Your task to perform on an android device: check storage Image 0: 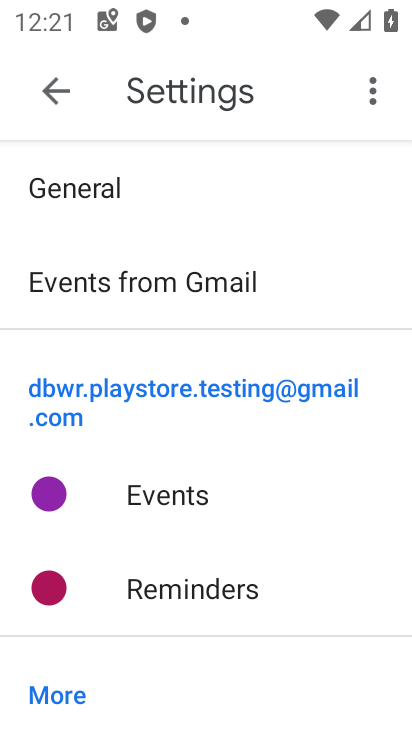
Step 0: press home button
Your task to perform on an android device: check storage Image 1: 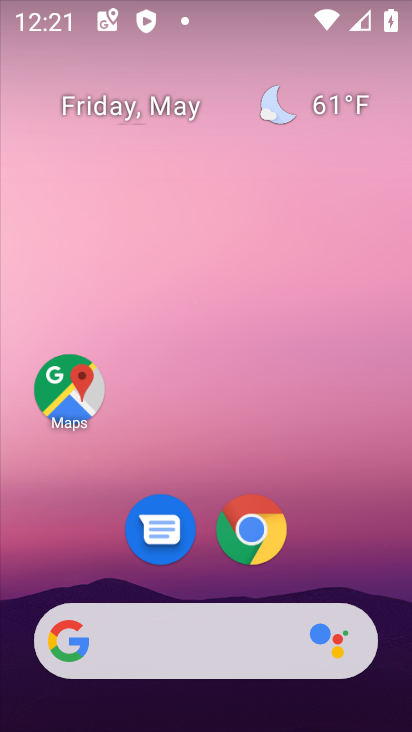
Step 1: drag from (362, 553) to (305, 90)
Your task to perform on an android device: check storage Image 2: 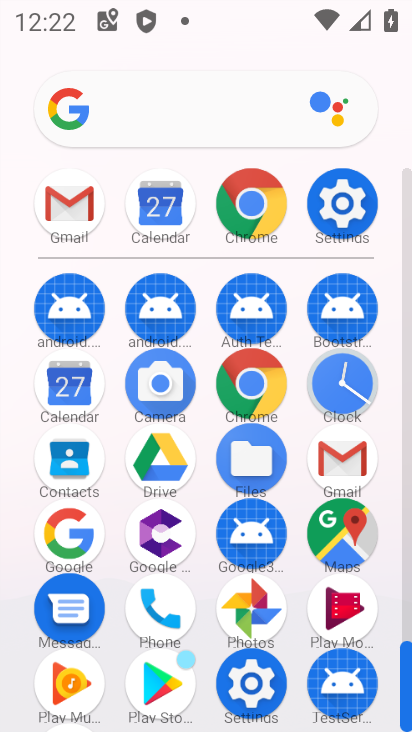
Step 2: click (335, 214)
Your task to perform on an android device: check storage Image 3: 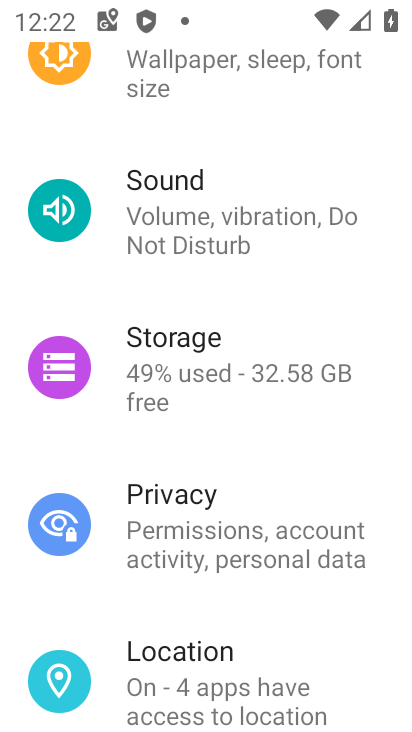
Step 3: click (200, 381)
Your task to perform on an android device: check storage Image 4: 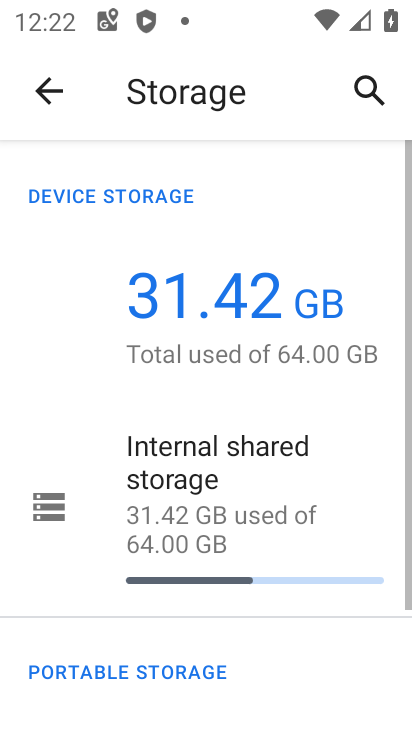
Step 4: task complete